Your task to perform on an android device: delete the emails in spam in the gmail app Image 0: 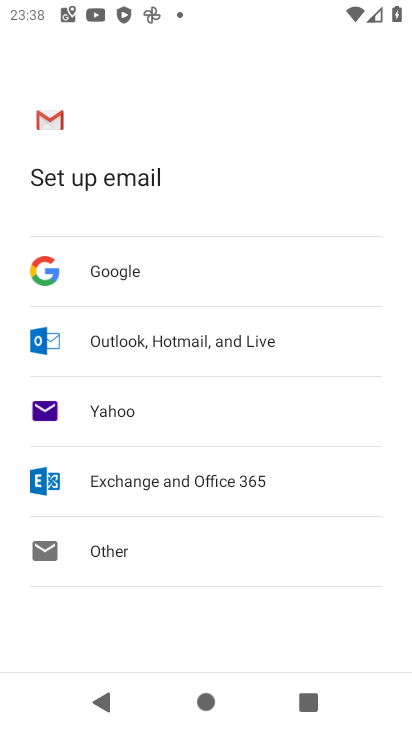
Step 0: press home button
Your task to perform on an android device: delete the emails in spam in the gmail app Image 1: 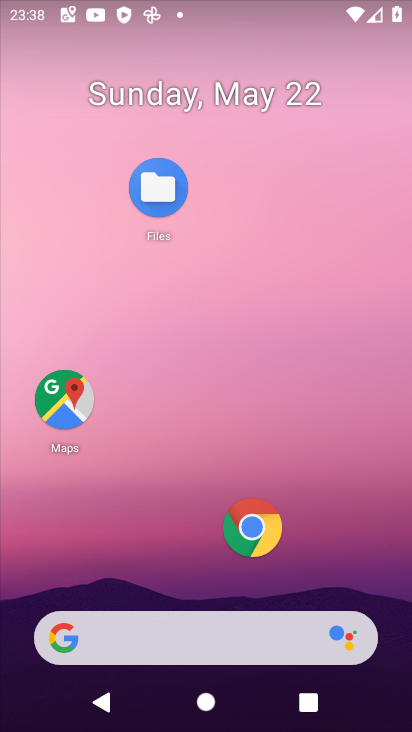
Step 1: drag from (153, 505) to (112, 90)
Your task to perform on an android device: delete the emails in spam in the gmail app Image 2: 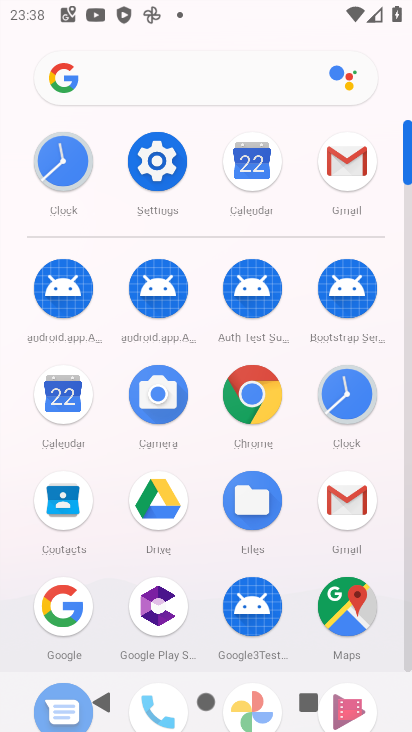
Step 2: click (342, 496)
Your task to perform on an android device: delete the emails in spam in the gmail app Image 3: 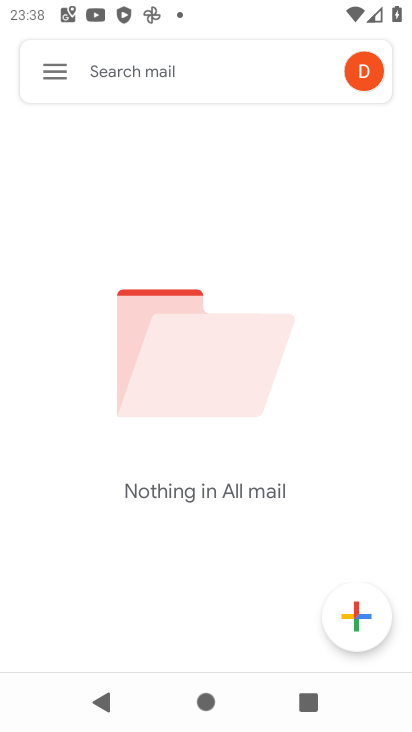
Step 3: click (52, 61)
Your task to perform on an android device: delete the emails in spam in the gmail app Image 4: 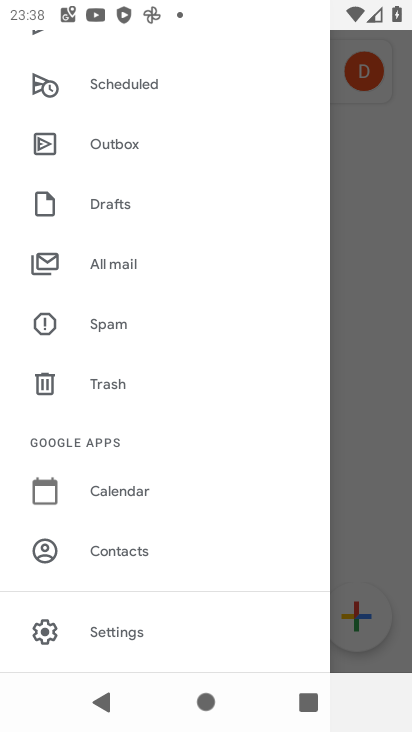
Step 4: click (92, 318)
Your task to perform on an android device: delete the emails in spam in the gmail app Image 5: 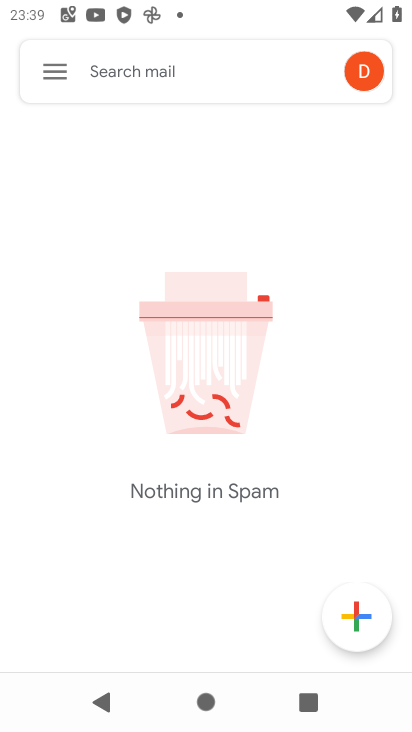
Step 5: task complete